Your task to perform on an android device: find snoozed emails in the gmail app Image 0: 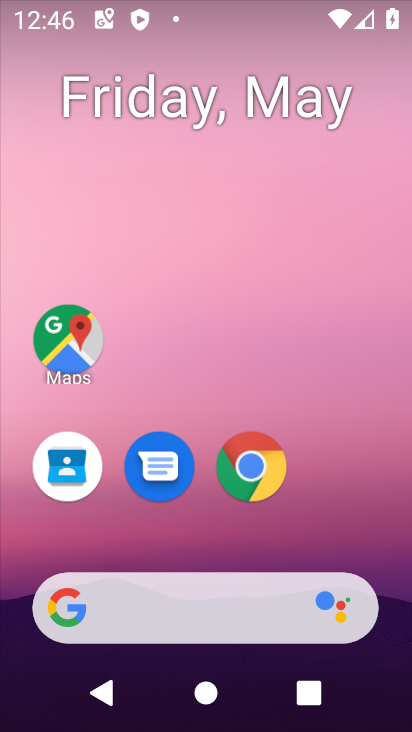
Step 0: drag from (180, 529) to (294, 14)
Your task to perform on an android device: find snoozed emails in the gmail app Image 1: 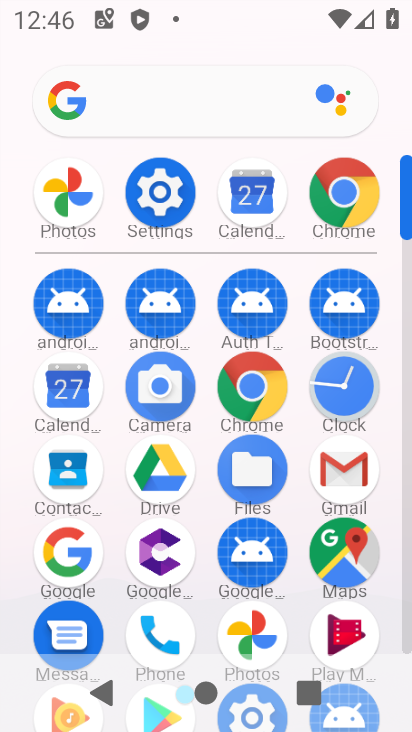
Step 1: click (354, 479)
Your task to perform on an android device: find snoozed emails in the gmail app Image 2: 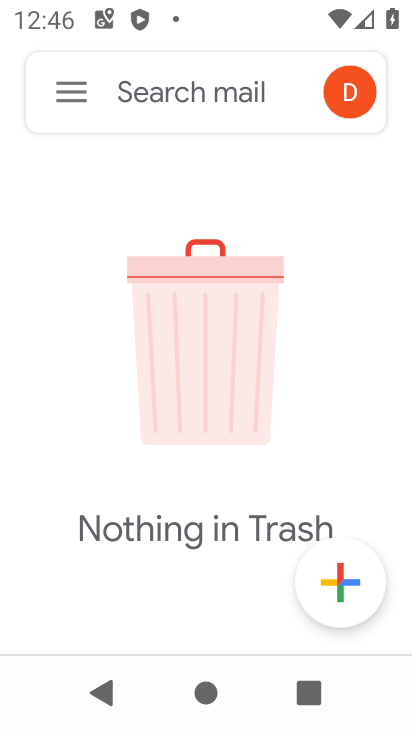
Step 2: click (59, 101)
Your task to perform on an android device: find snoozed emails in the gmail app Image 3: 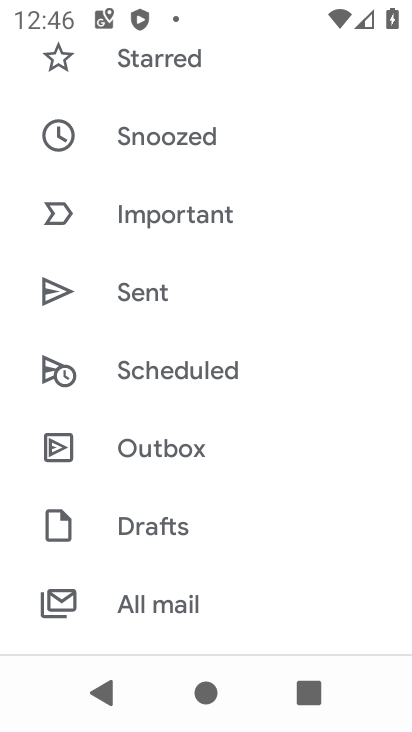
Step 3: click (70, 99)
Your task to perform on an android device: find snoozed emails in the gmail app Image 4: 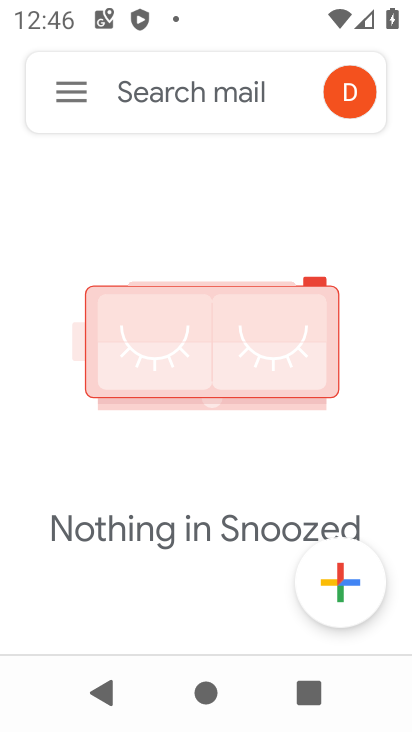
Step 4: click (73, 99)
Your task to perform on an android device: find snoozed emails in the gmail app Image 5: 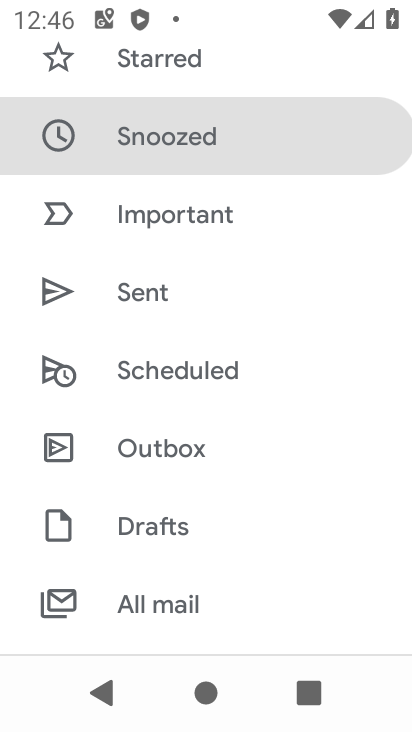
Step 5: click (178, 145)
Your task to perform on an android device: find snoozed emails in the gmail app Image 6: 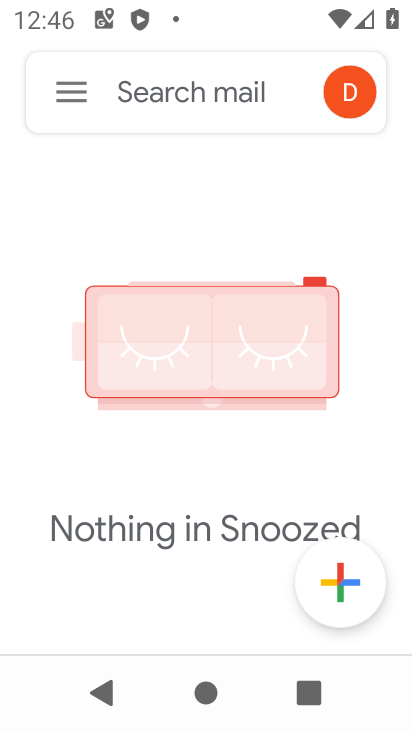
Step 6: task complete